Your task to perform on an android device: Go to Google Image 0: 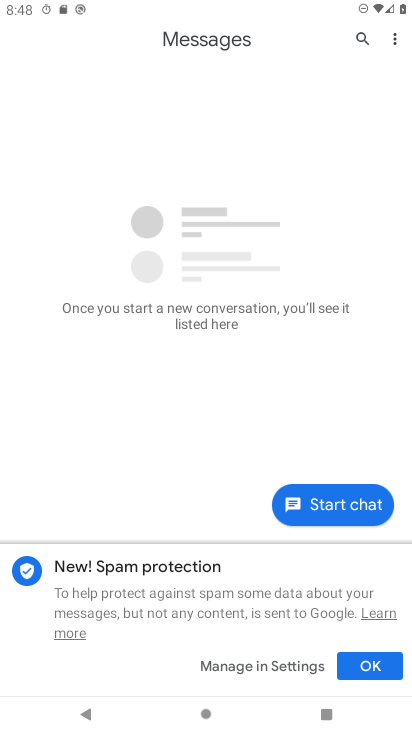
Step 0: press back button
Your task to perform on an android device: Go to Google Image 1: 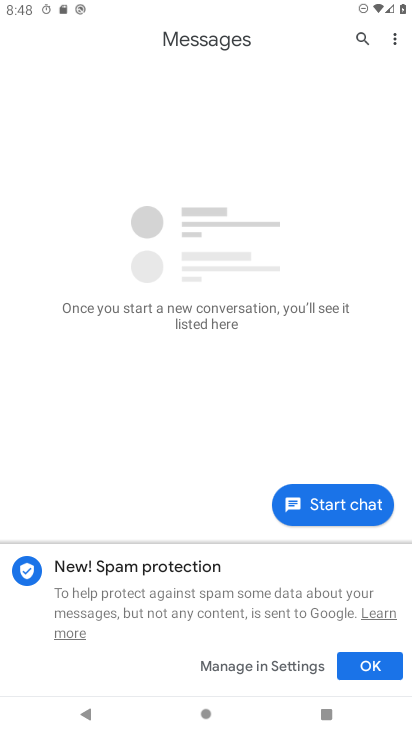
Step 1: press back button
Your task to perform on an android device: Go to Google Image 2: 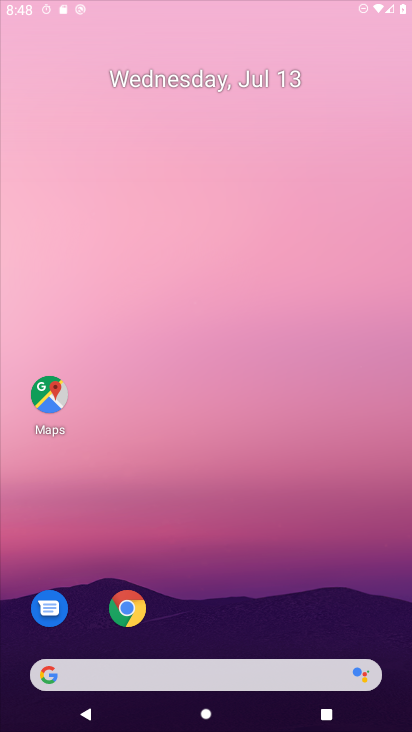
Step 2: press back button
Your task to perform on an android device: Go to Google Image 3: 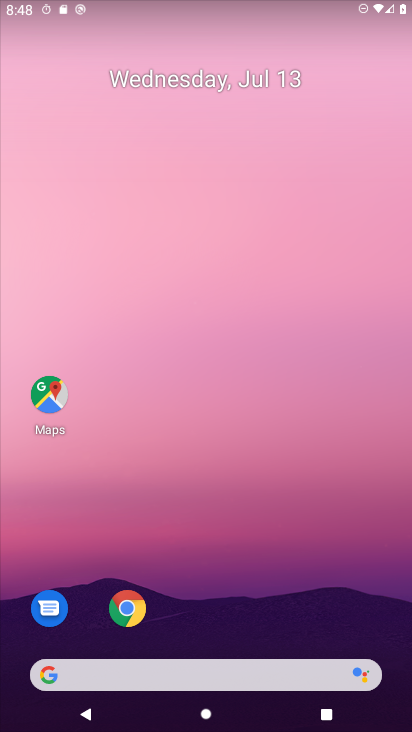
Step 3: drag from (250, 693) to (226, 320)
Your task to perform on an android device: Go to Google Image 4: 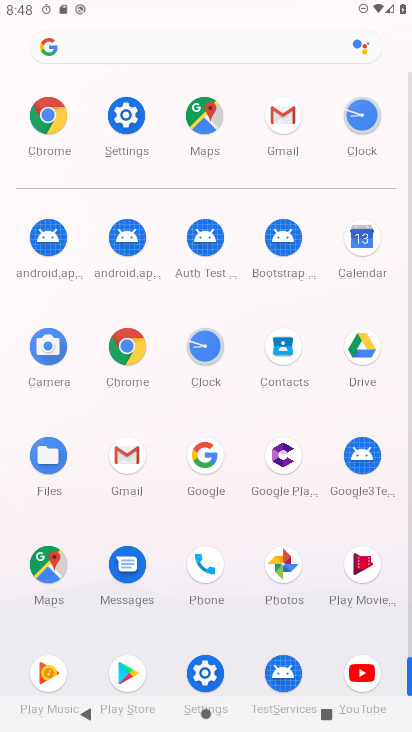
Step 4: click (212, 449)
Your task to perform on an android device: Go to Google Image 5: 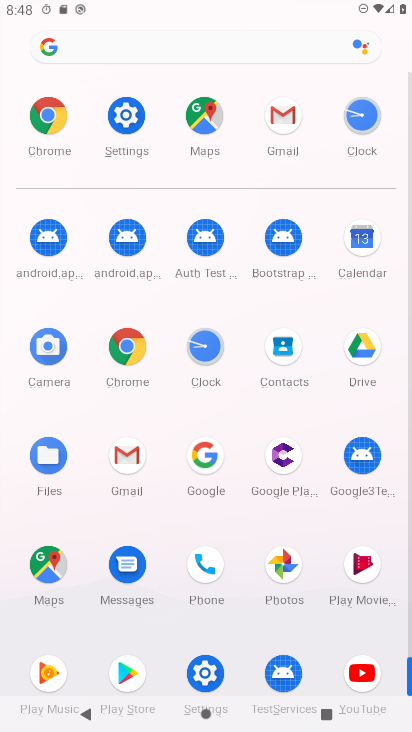
Step 5: click (212, 449)
Your task to perform on an android device: Go to Google Image 6: 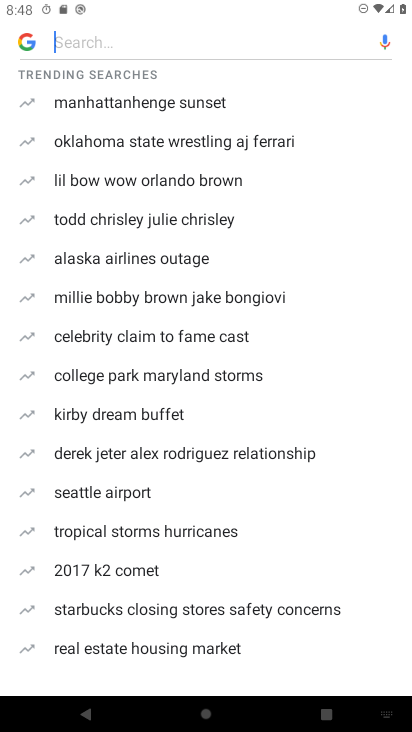
Step 6: press back button
Your task to perform on an android device: Go to Google Image 7: 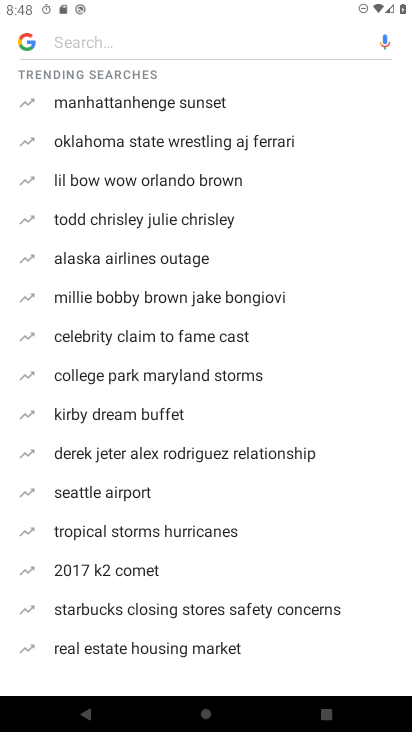
Step 7: press back button
Your task to perform on an android device: Go to Google Image 8: 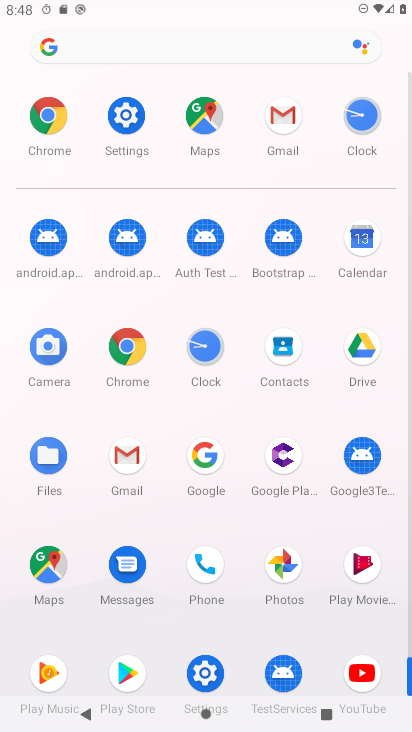
Step 8: click (204, 450)
Your task to perform on an android device: Go to Google Image 9: 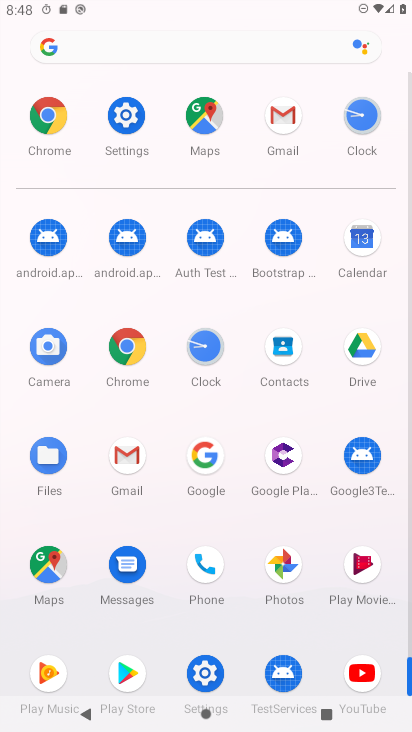
Step 9: click (204, 450)
Your task to perform on an android device: Go to Google Image 10: 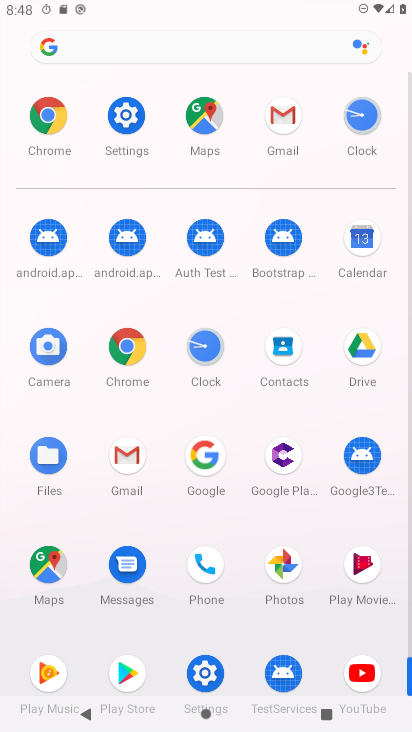
Step 10: click (204, 450)
Your task to perform on an android device: Go to Google Image 11: 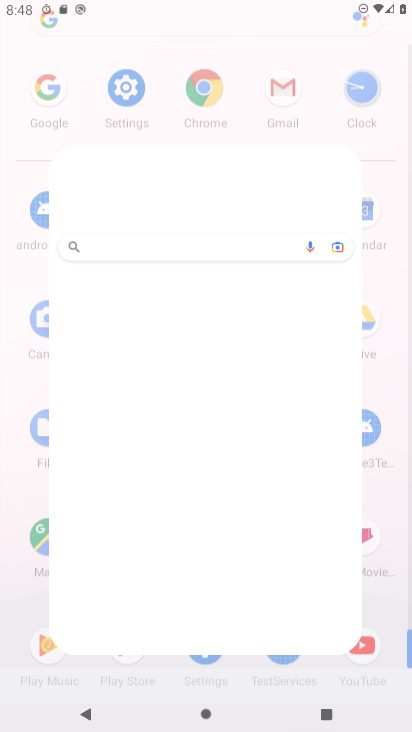
Step 11: click (204, 450)
Your task to perform on an android device: Go to Google Image 12: 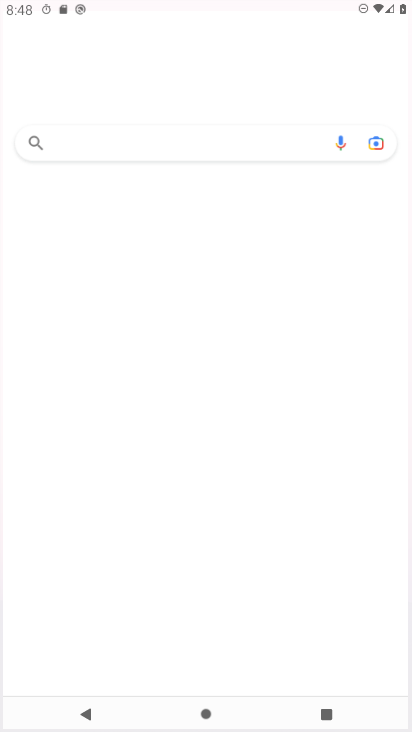
Step 12: click (204, 450)
Your task to perform on an android device: Go to Google Image 13: 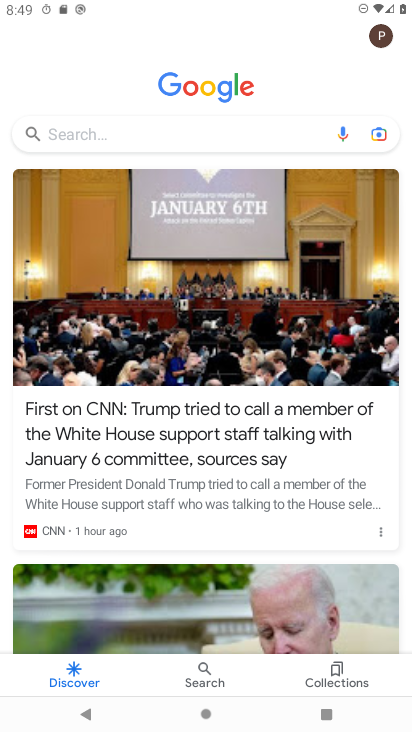
Step 13: task complete